Your task to perform on an android device: turn on javascript in the chrome app Image 0: 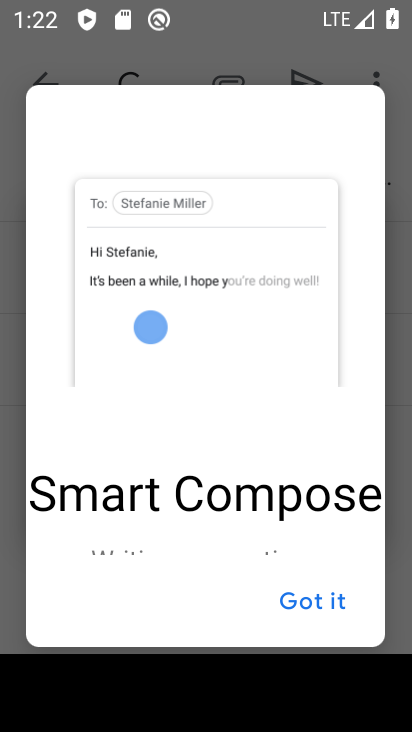
Step 0: press home button
Your task to perform on an android device: turn on javascript in the chrome app Image 1: 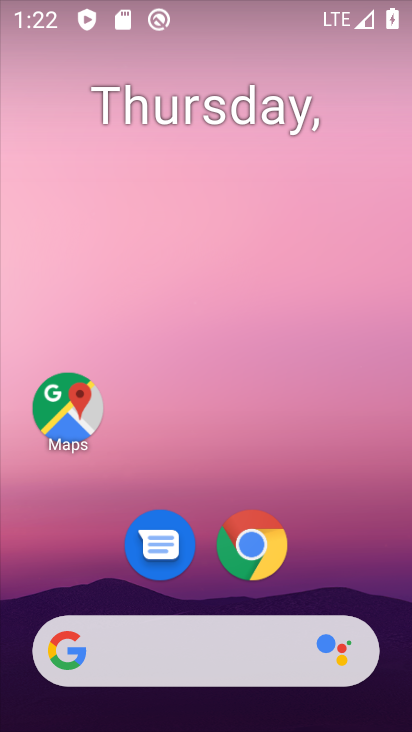
Step 1: click (261, 550)
Your task to perform on an android device: turn on javascript in the chrome app Image 2: 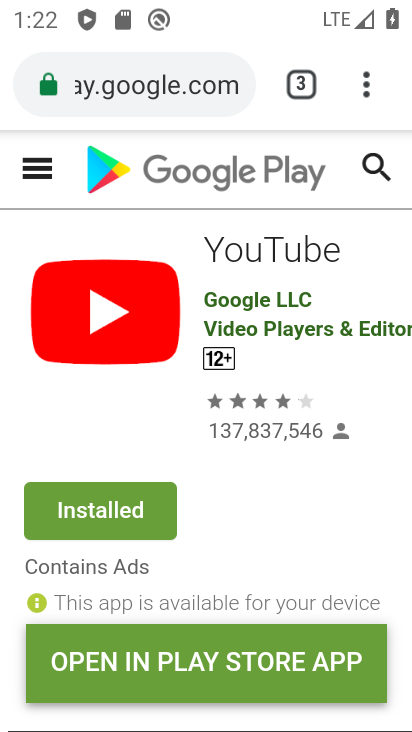
Step 2: click (363, 87)
Your task to perform on an android device: turn on javascript in the chrome app Image 3: 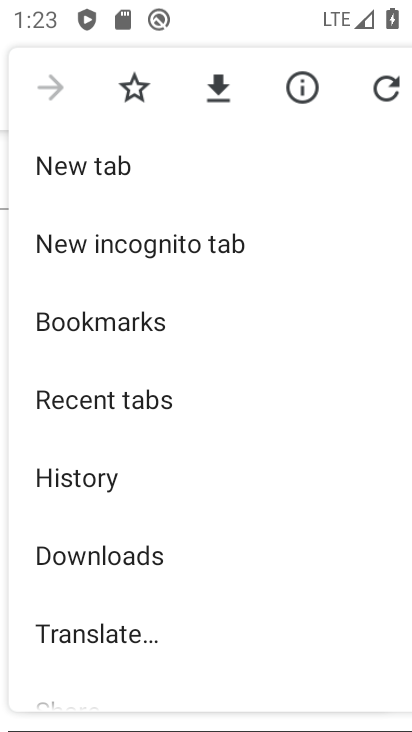
Step 3: drag from (285, 602) to (202, 261)
Your task to perform on an android device: turn on javascript in the chrome app Image 4: 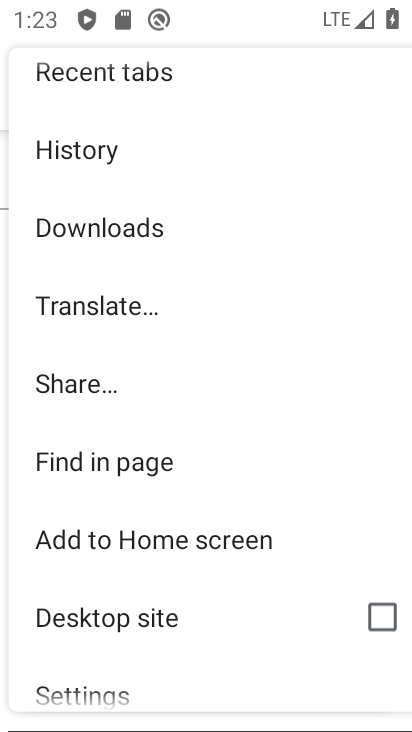
Step 4: click (121, 693)
Your task to perform on an android device: turn on javascript in the chrome app Image 5: 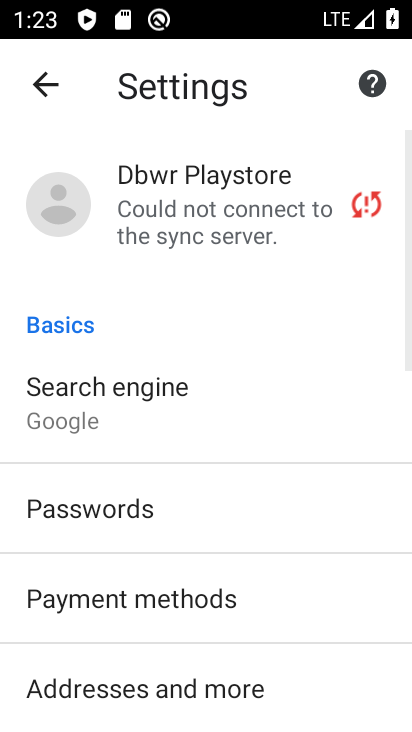
Step 5: drag from (253, 566) to (237, 173)
Your task to perform on an android device: turn on javascript in the chrome app Image 6: 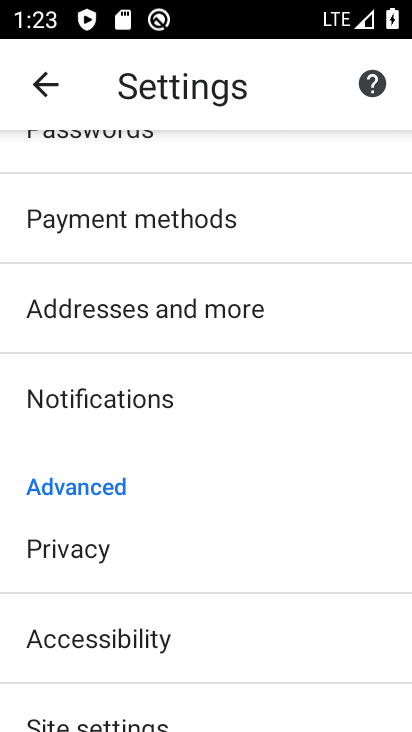
Step 6: click (126, 719)
Your task to perform on an android device: turn on javascript in the chrome app Image 7: 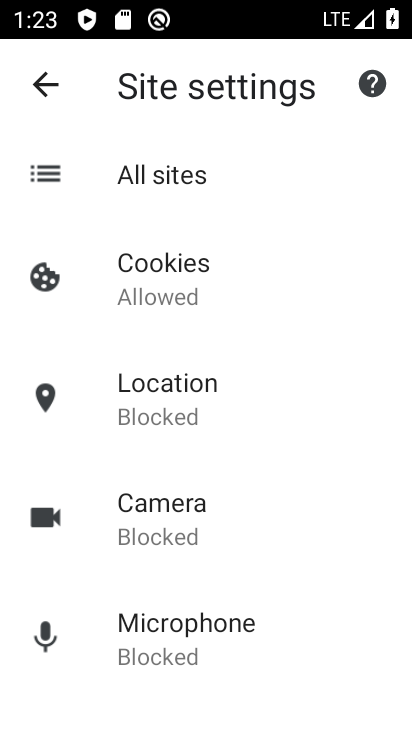
Step 7: drag from (226, 637) to (165, 109)
Your task to perform on an android device: turn on javascript in the chrome app Image 8: 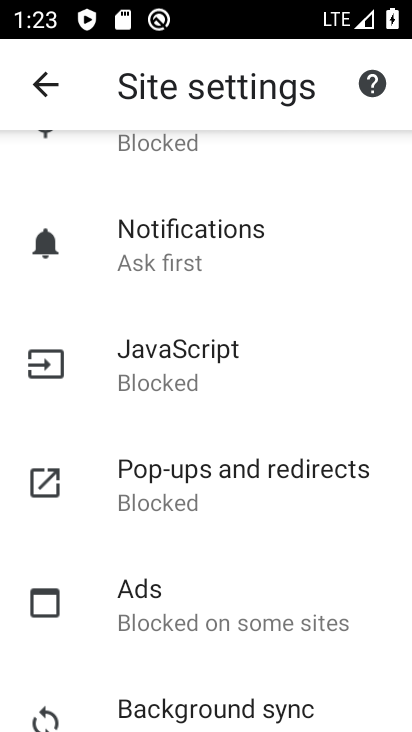
Step 8: click (187, 352)
Your task to perform on an android device: turn on javascript in the chrome app Image 9: 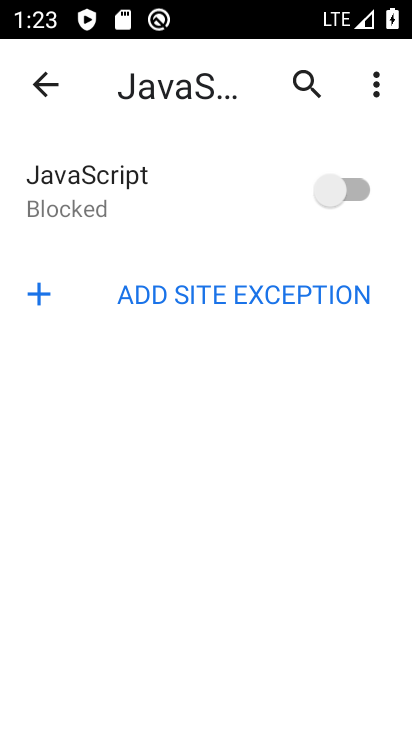
Step 9: click (357, 178)
Your task to perform on an android device: turn on javascript in the chrome app Image 10: 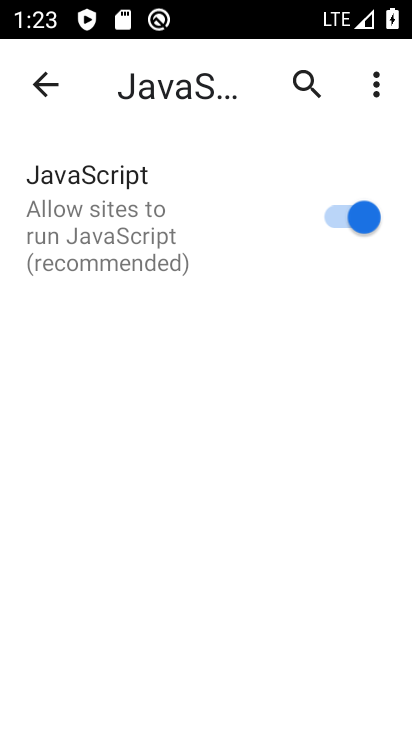
Step 10: task complete